Your task to perform on an android device: set default search engine in the chrome app Image 0: 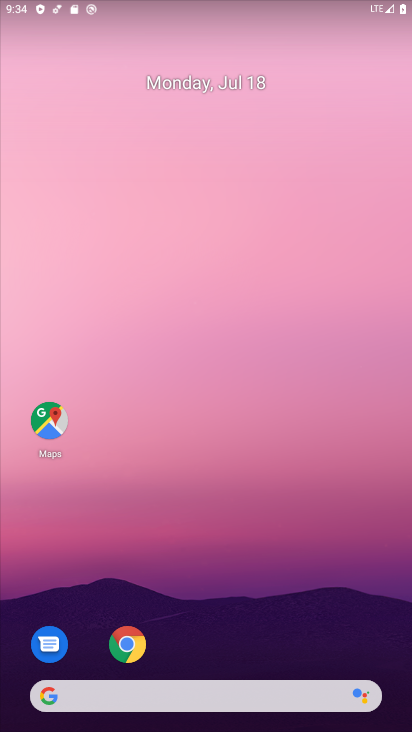
Step 0: drag from (324, 639) to (335, 98)
Your task to perform on an android device: set default search engine in the chrome app Image 1: 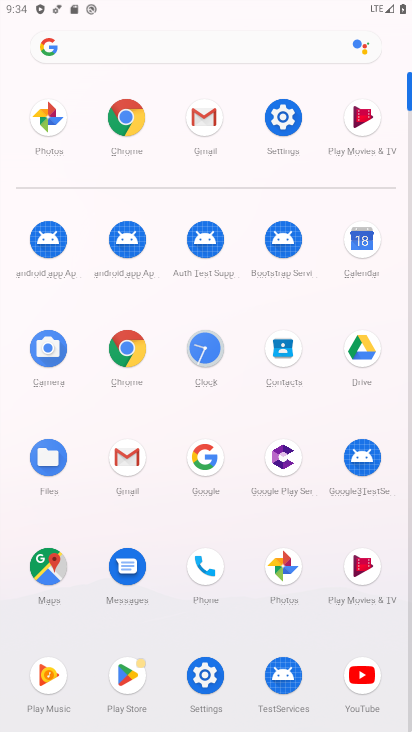
Step 1: click (130, 346)
Your task to perform on an android device: set default search engine in the chrome app Image 2: 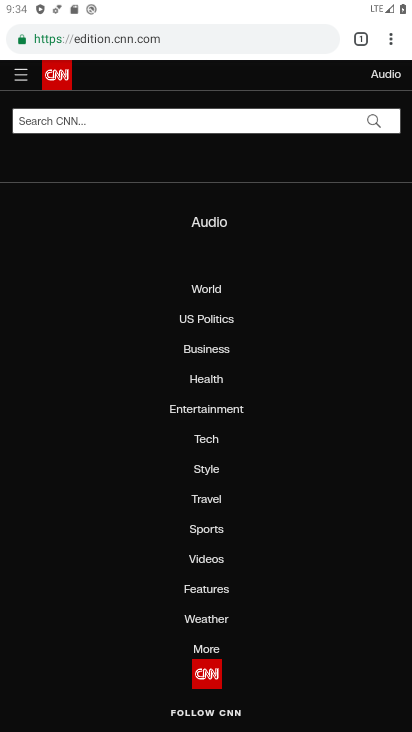
Step 2: click (394, 44)
Your task to perform on an android device: set default search engine in the chrome app Image 3: 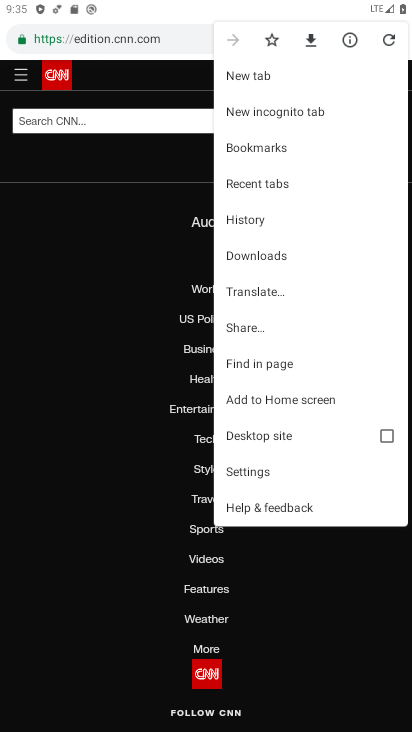
Step 3: click (265, 470)
Your task to perform on an android device: set default search engine in the chrome app Image 4: 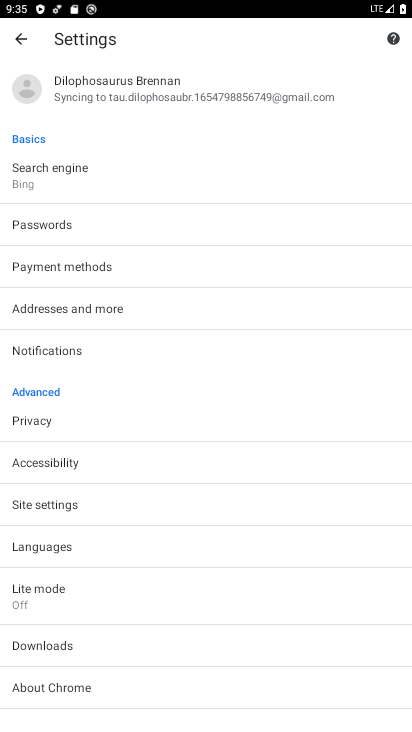
Step 4: drag from (283, 616) to (284, 510)
Your task to perform on an android device: set default search engine in the chrome app Image 5: 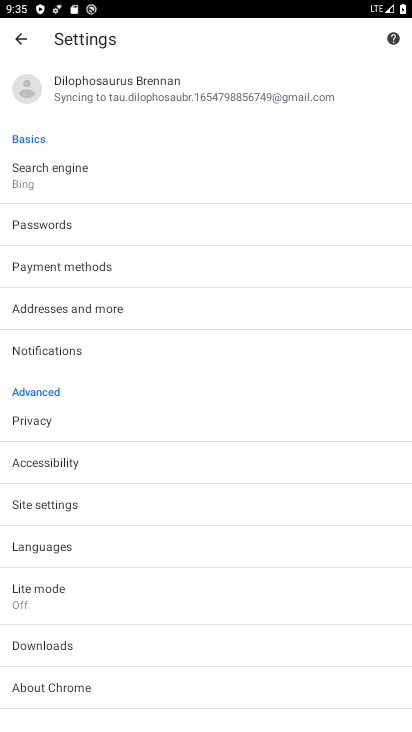
Step 5: click (167, 172)
Your task to perform on an android device: set default search engine in the chrome app Image 6: 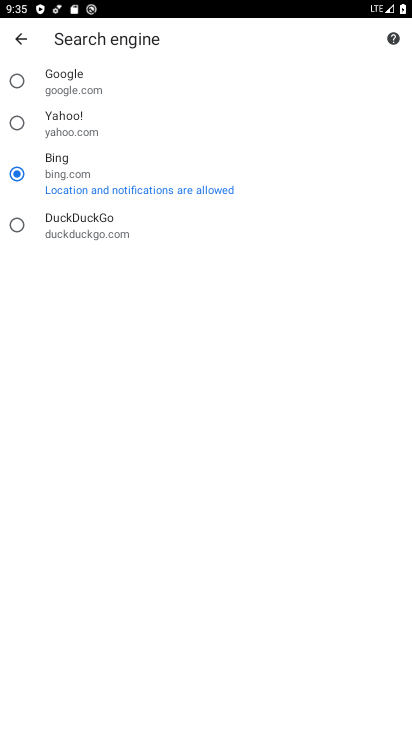
Step 6: click (89, 87)
Your task to perform on an android device: set default search engine in the chrome app Image 7: 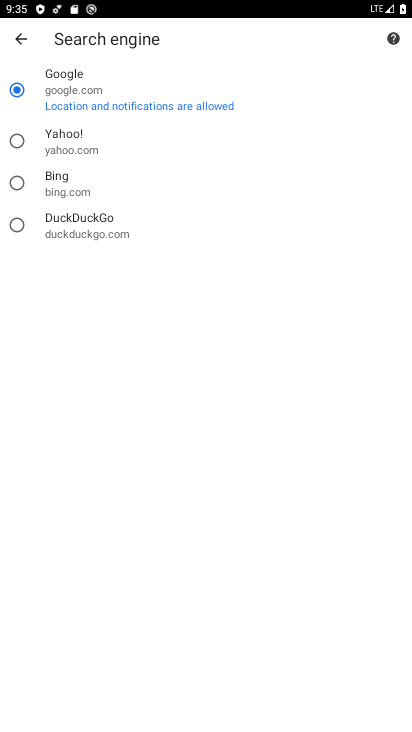
Step 7: task complete